Your task to perform on an android device: Check the news Image 0: 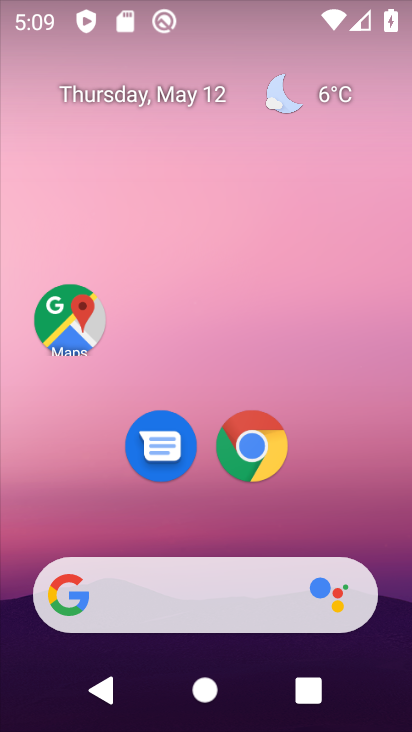
Step 0: click (260, 467)
Your task to perform on an android device: Check the news Image 1: 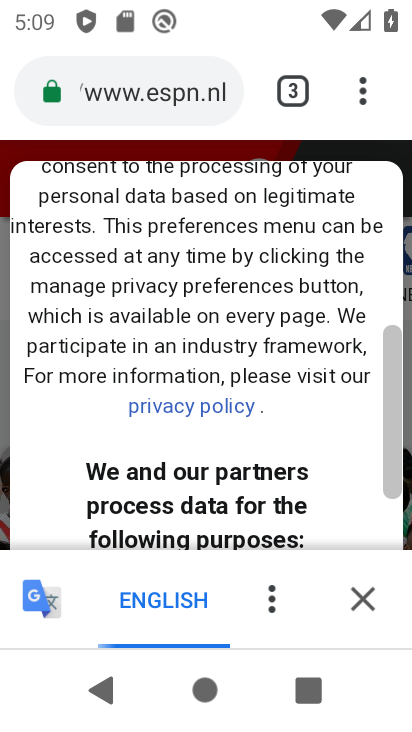
Step 1: click (197, 92)
Your task to perform on an android device: Check the news Image 2: 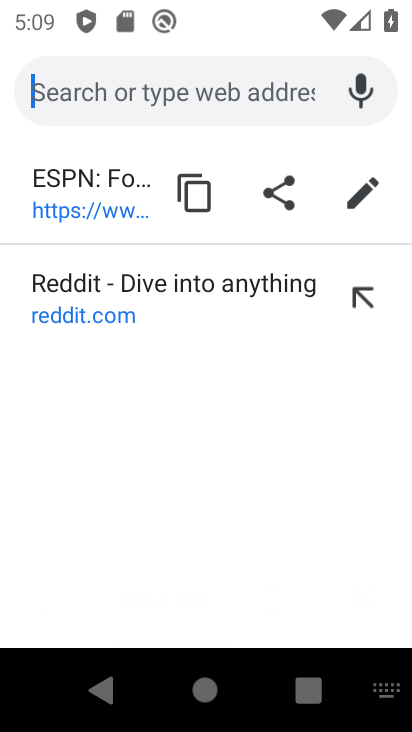
Step 2: type "news"
Your task to perform on an android device: Check the news Image 3: 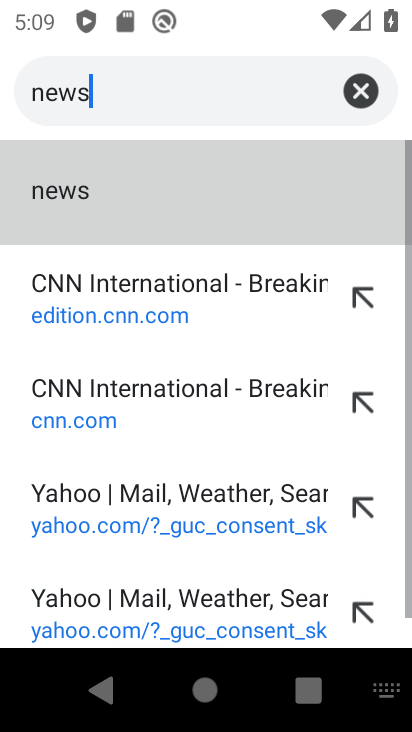
Step 3: click (52, 178)
Your task to perform on an android device: Check the news Image 4: 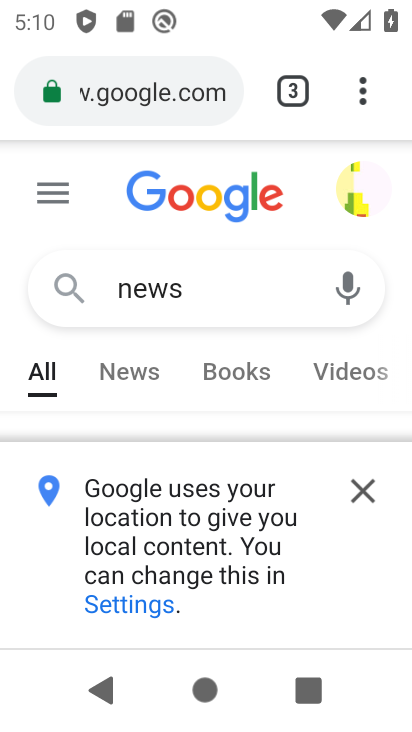
Step 4: task complete